Your task to perform on an android device: Go to location settings Image 0: 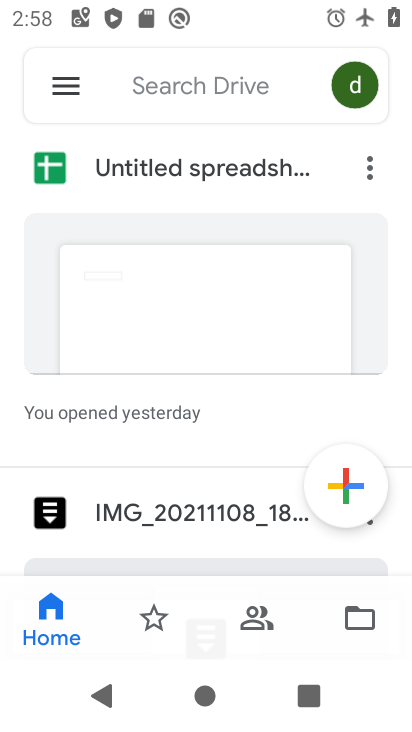
Step 0: press home button
Your task to perform on an android device: Go to location settings Image 1: 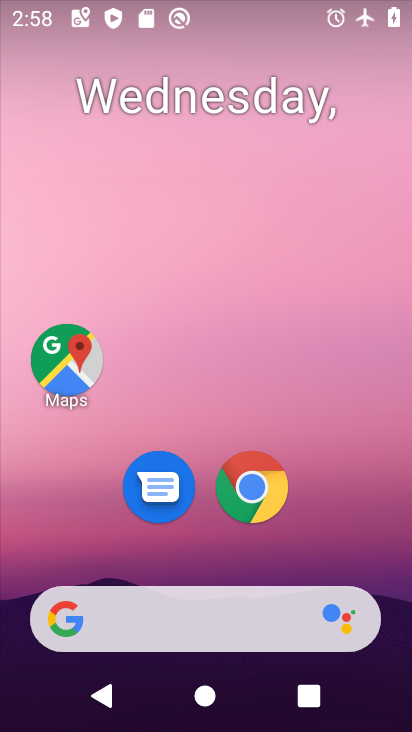
Step 1: drag from (386, 572) to (379, 267)
Your task to perform on an android device: Go to location settings Image 2: 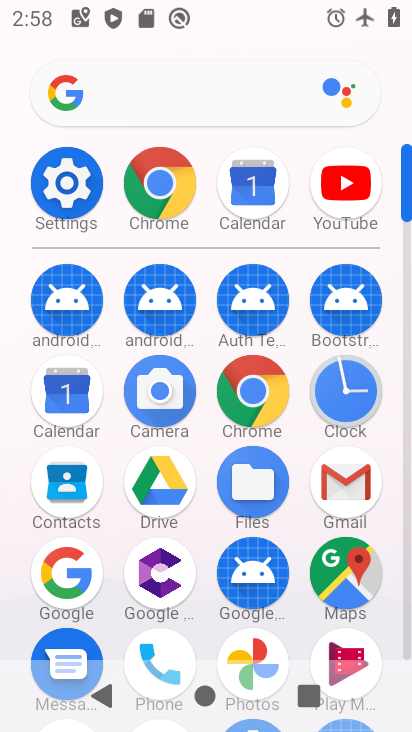
Step 2: click (78, 201)
Your task to perform on an android device: Go to location settings Image 3: 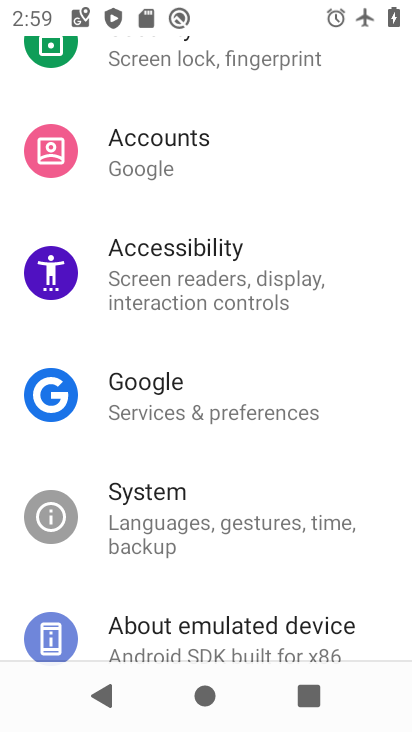
Step 3: drag from (331, 183) to (345, 292)
Your task to perform on an android device: Go to location settings Image 4: 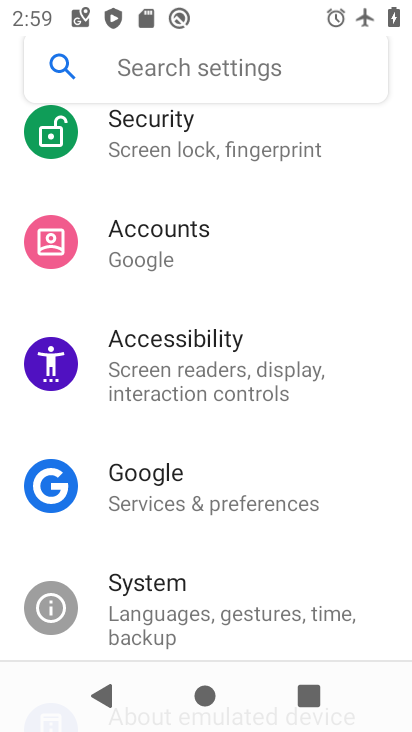
Step 4: drag from (343, 183) to (351, 313)
Your task to perform on an android device: Go to location settings Image 5: 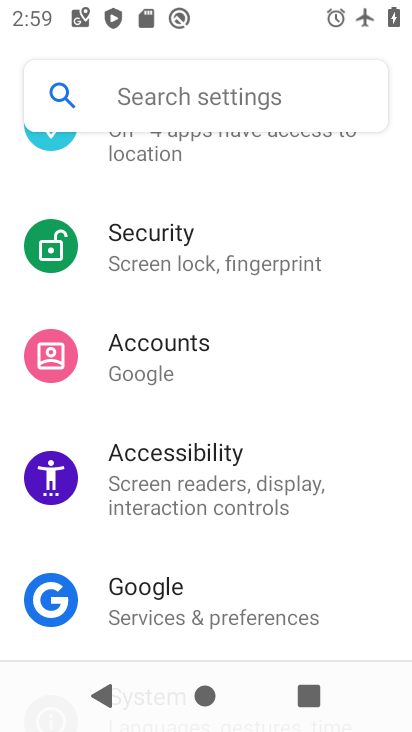
Step 5: drag from (346, 205) to (344, 319)
Your task to perform on an android device: Go to location settings Image 6: 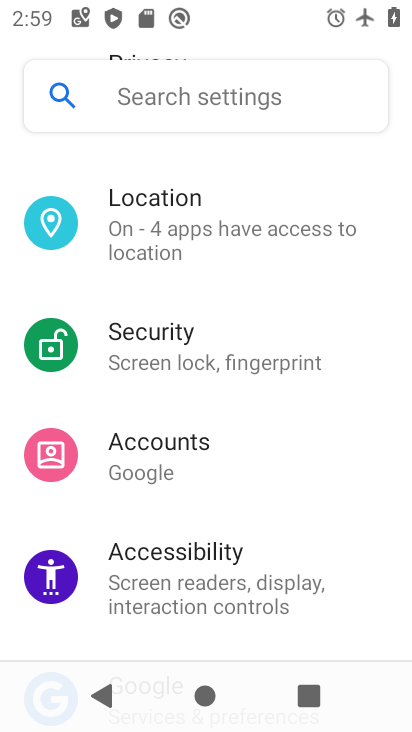
Step 6: drag from (340, 187) to (344, 308)
Your task to perform on an android device: Go to location settings Image 7: 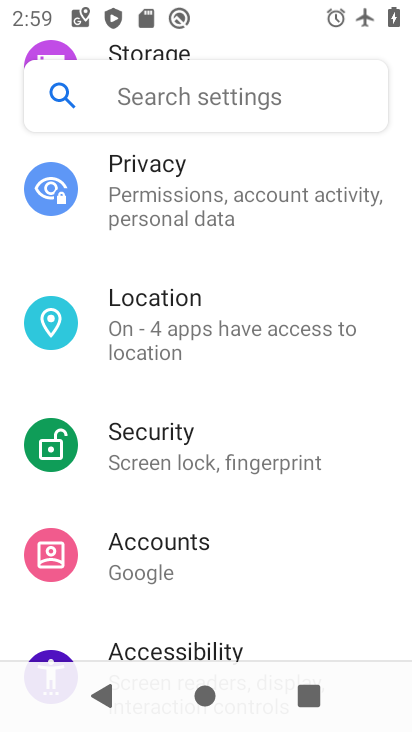
Step 7: drag from (326, 175) to (335, 282)
Your task to perform on an android device: Go to location settings Image 8: 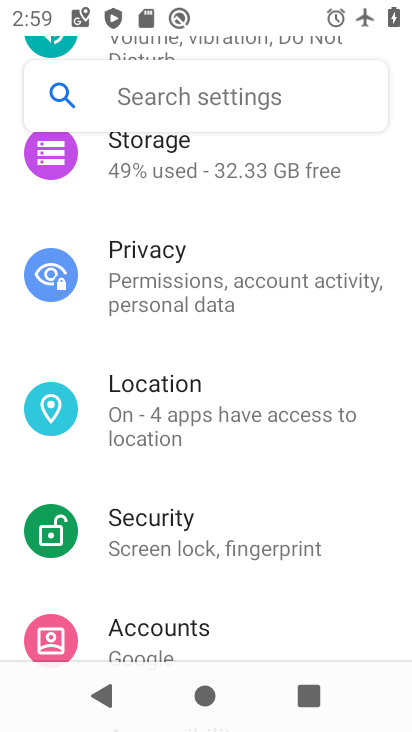
Step 8: drag from (331, 224) to (328, 313)
Your task to perform on an android device: Go to location settings Image 9: 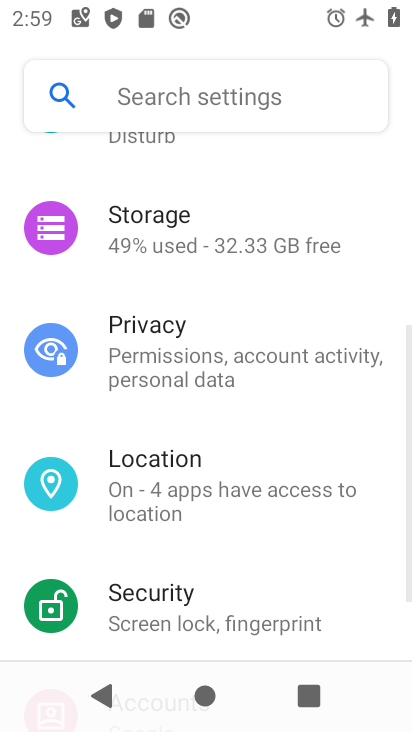
Step 9: drag from (338, 209) to (340, 337)
Your task to perform on an android device: Go to location settings Image 10: 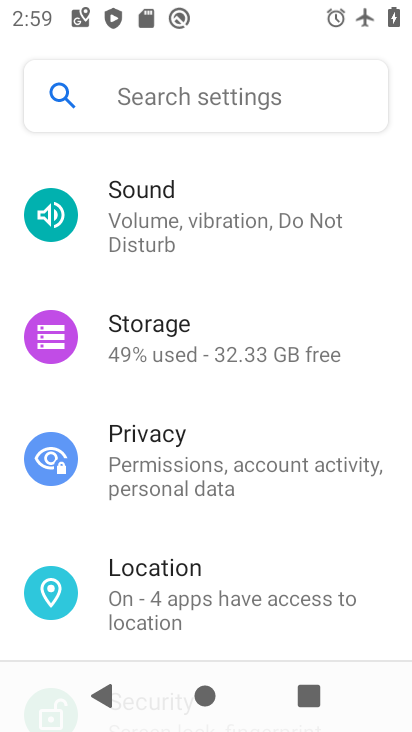
Step 10: drag from (342, 167) to (345, 300)
Your task to perform on an android device: Go to location settings Image 11: 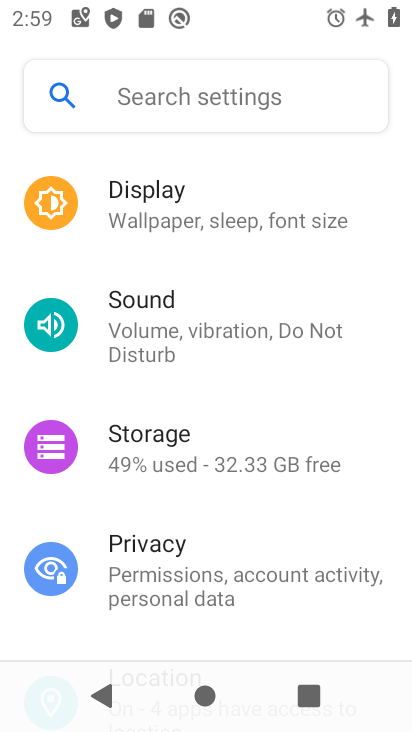
Step 11: drag from (346, 313) to (361, 468)
Your task to perform on an android device: Go to location settings Image 12: 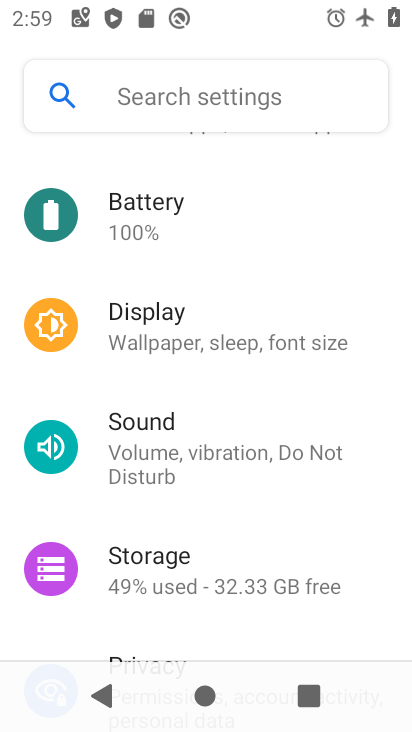
Step 12: drag from (367, 236) to (366, 455)
Your task to perform on an android device: Go to location settings Image 13: 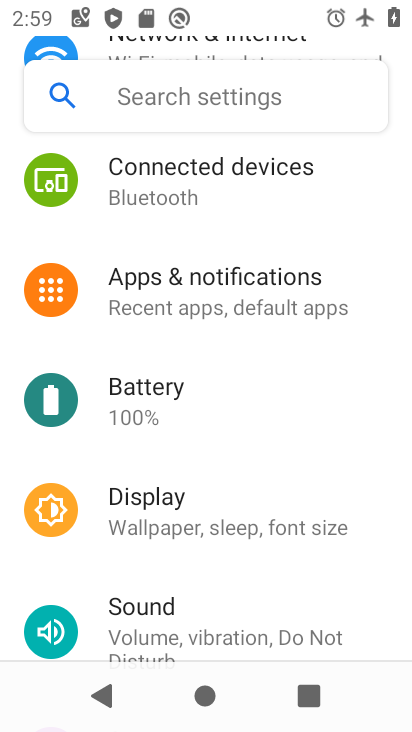
Step 13: drag from (356, 448) to (359, 320)
Your task to perform on an android device: Go to location settings Image 14: 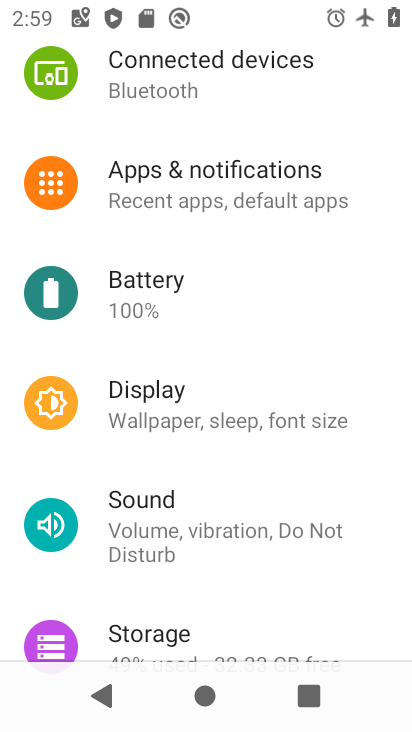
Step 14: drag from (358, 490) to (358, 396)
Your task to perform on an android device: Go to location settings Image 15: 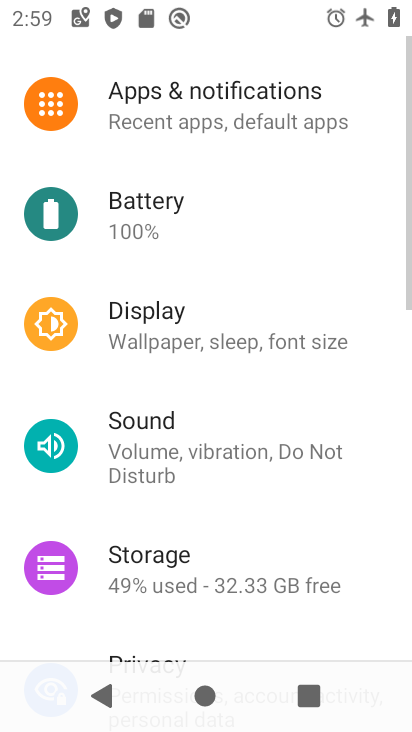
Step 15: drag from (351, 506) to (353, 397)
Your task to perform on an android device: Go to location settings Image 16: 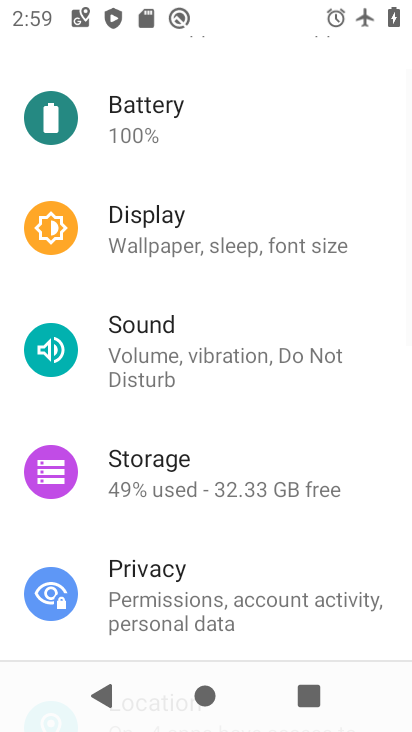
Step 16: drag from (341, 548) to (353, 423)
Your task to perform on an android device: Go to location settings Image 17: 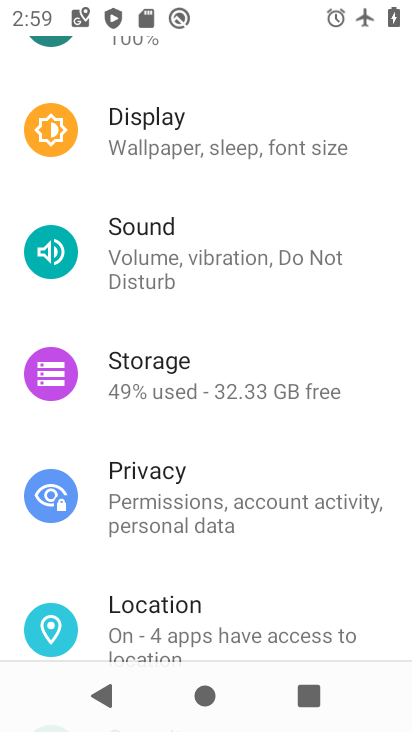
Step 17: drag from (356, 554) to (343, 369)
Your task to perform on an android device: Go to location settings Image 18: 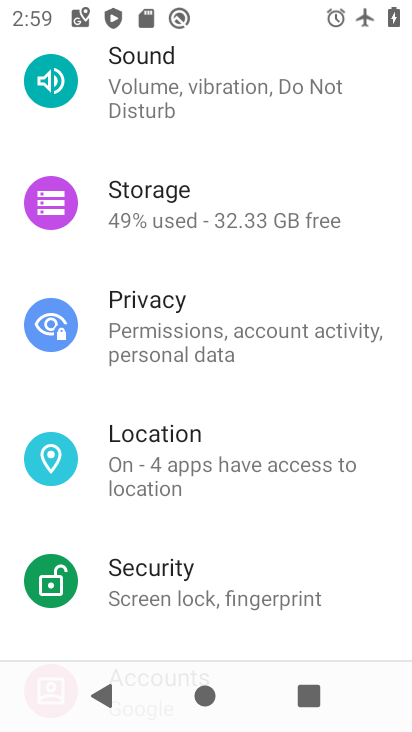
Step 18: click (212, 463)
Your task to perform on an android device: Go to location settings Image 19: 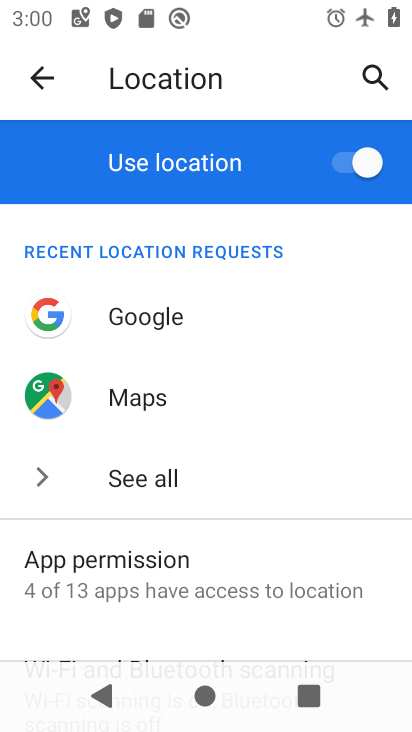
Step 19: task complete